Your task to perform on an android device: Open network settings Image 0: 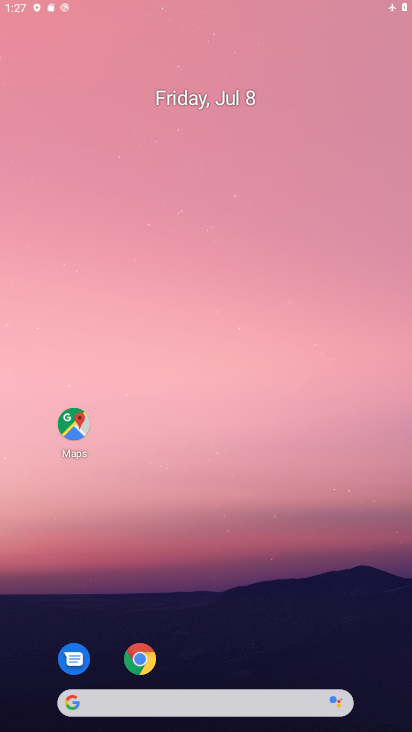
Step 0: drag from (340, 574) to (271, 139)
Your task to perform on an android device: Open network settings Image 1: 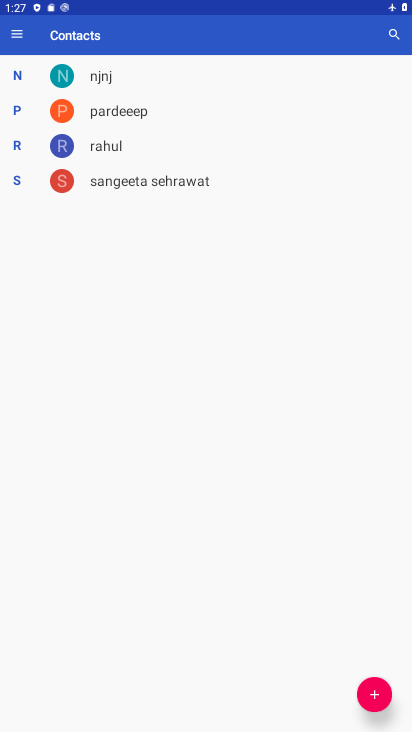
Step 1: press home button
Your task to perform on an android device: Open network settings Image 2: 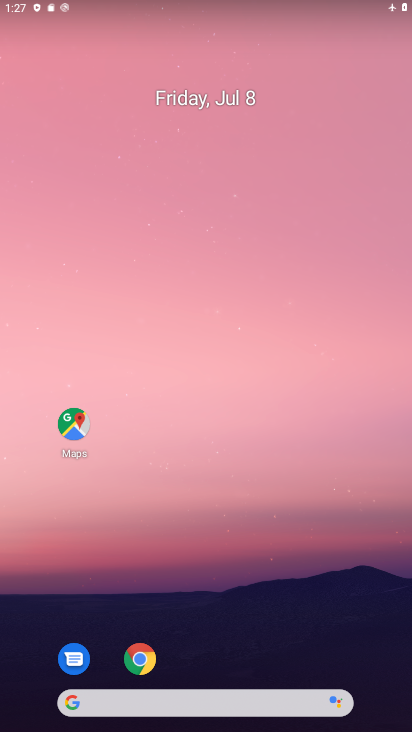
Step 2: drag from (203, 633) to (280, 237)
Your task to perform on an android device: Open network settings Image 3: 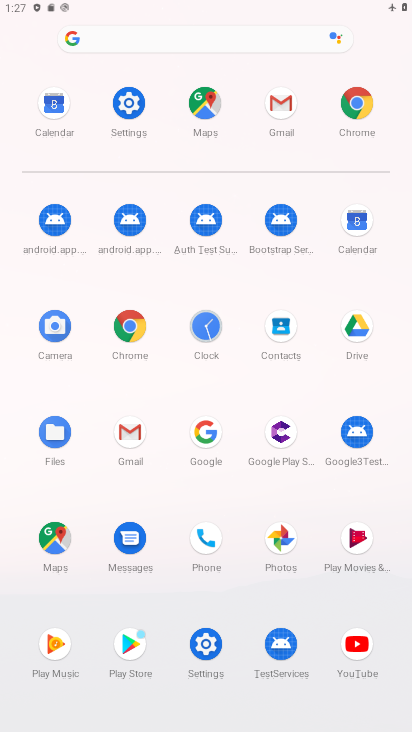
Step 3: click (211, 659)
Your task to perform on an android device: Open network settings Image 4: 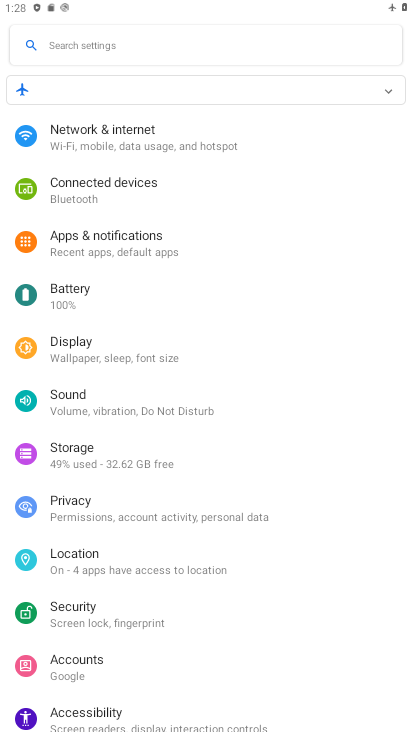
Step 4: click (208, 149)
Your task to perform on an android device: Open network settings Image 5: 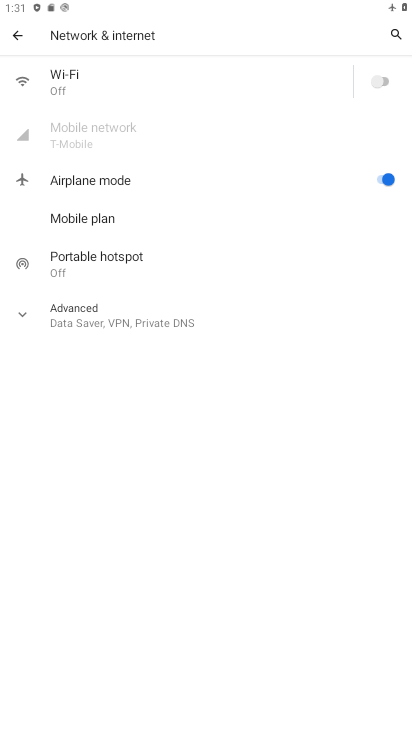
Step 5: click (219, 131)
Your task to perform on an android device: Open network settings Image 6: 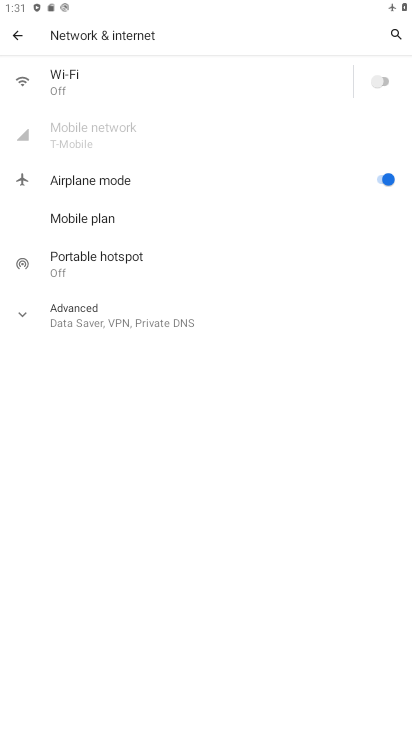
Step 6: click (219, 131)
Your task to perform on an android device: Open network settings Image 7: 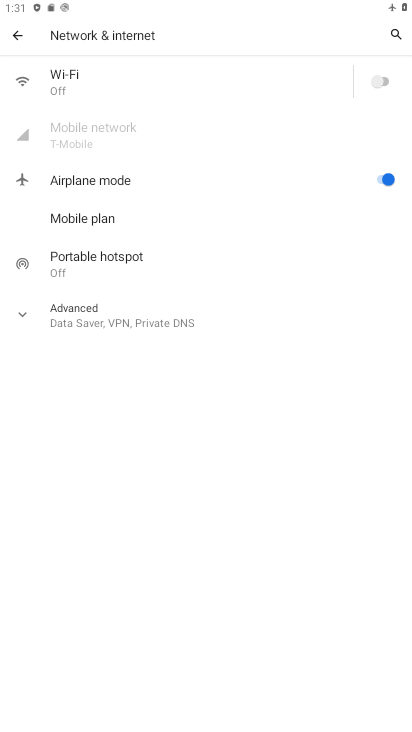
Step 7: task complete